Your task to perform on an android device: Go to settings Image 0: 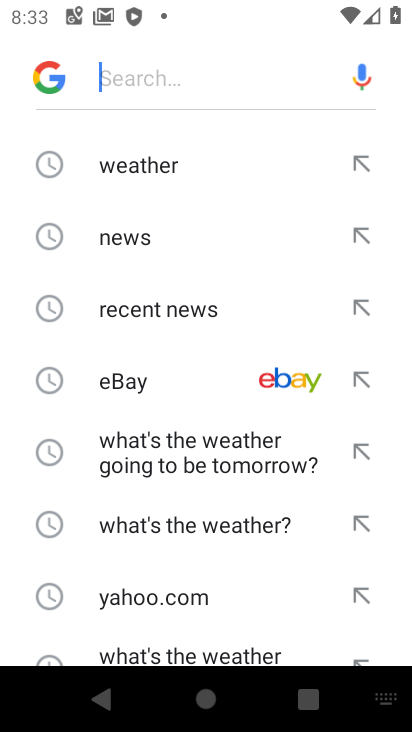
Step 0: press home button
Your task to perform on an android device: Go to settings Image 1: 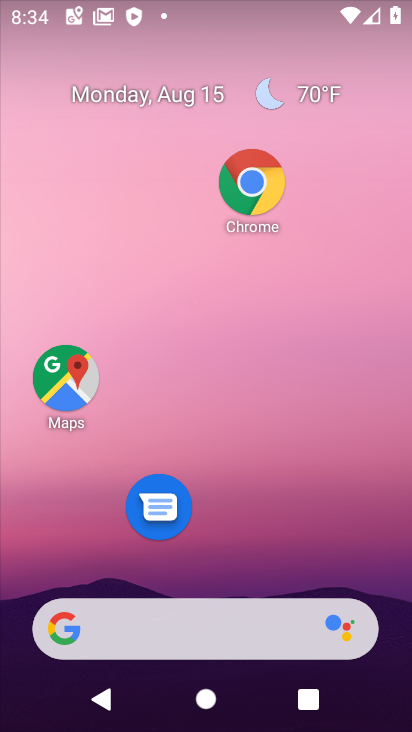
Step 1: drag from (307, 567) to (285, 1)
Your task to perform on an android device: Go to settings Image 2: 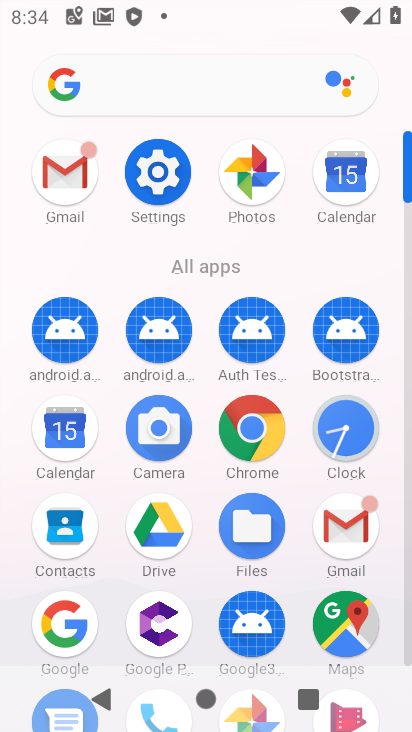
Step 2: click (158, 186)
Your task to perform on an android device: Go to settings Image 3: 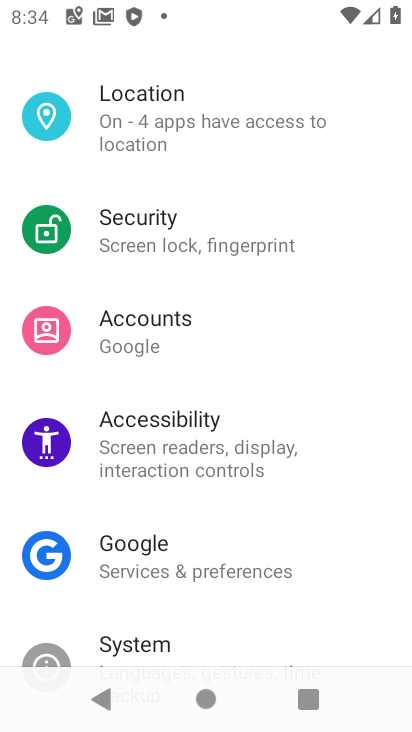
Step 3: task complete